Your task to perform on an android device: change text size in settings app Image 0: 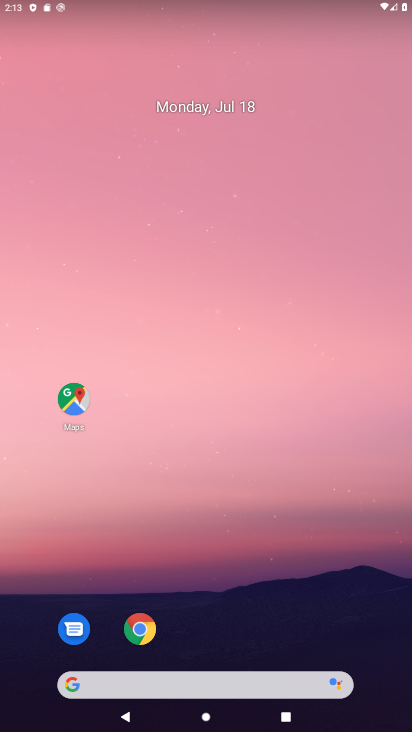
Step 0: drag from (215, 655) to (293, 240)
Your task to perform on an android device: change text size in settings app Image 1: 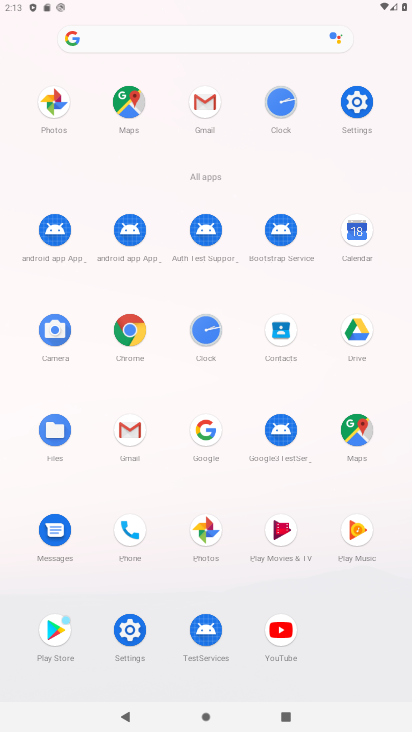
Step 1: click (359, 110)
Your task to perform on an android device: change text size in settings app Image 2: 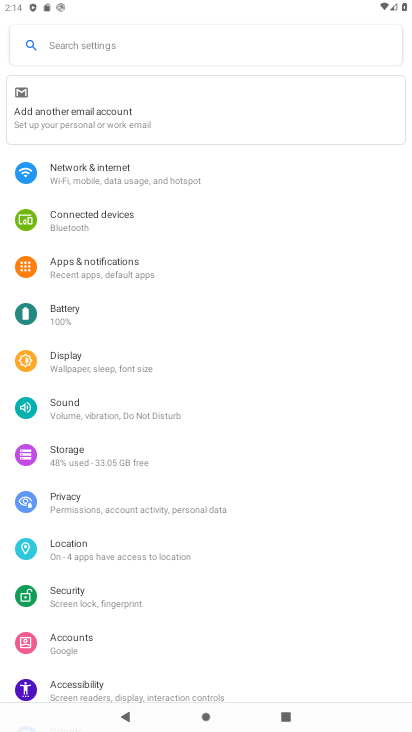
Step 2: click (84, 683)
Your task to perform on an android device: change text size in settings app Image 3: 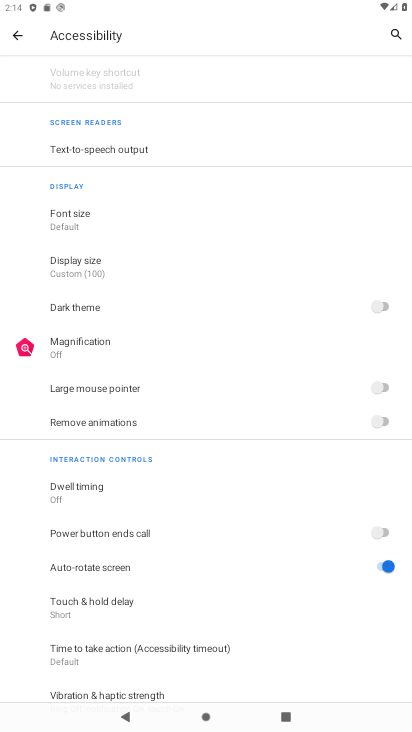
Step 3: click (92, 214)
Your task to perform on an android device: change text size in settings app Image 4: 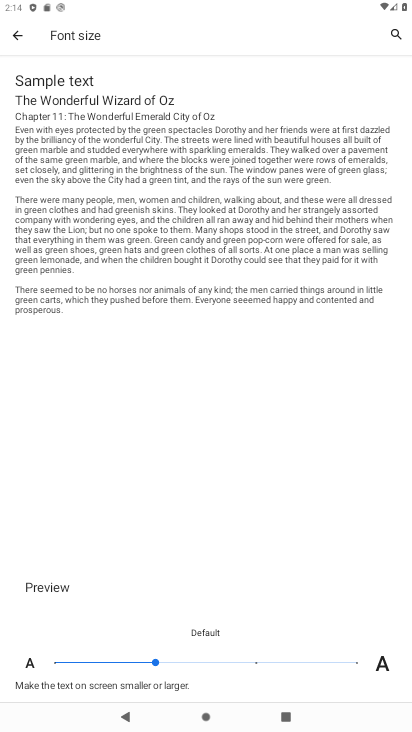
Step 4: click (252, 661)
Your task to perform on an android device: change text size in settings app Image 5: 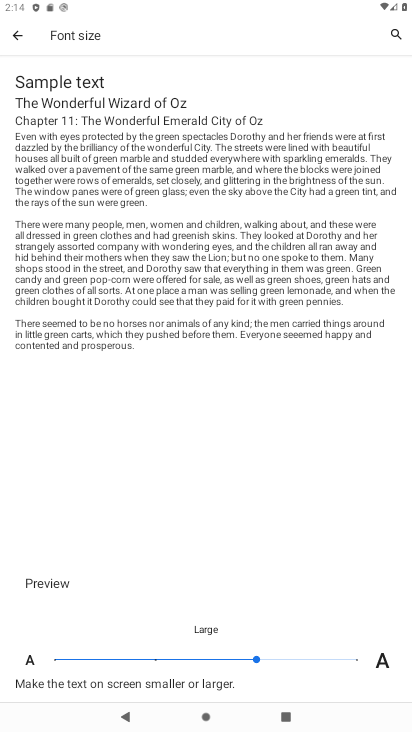
Step 5: task complete